Your task to perform on an android device: change notification settings in the gmail app Image 0: 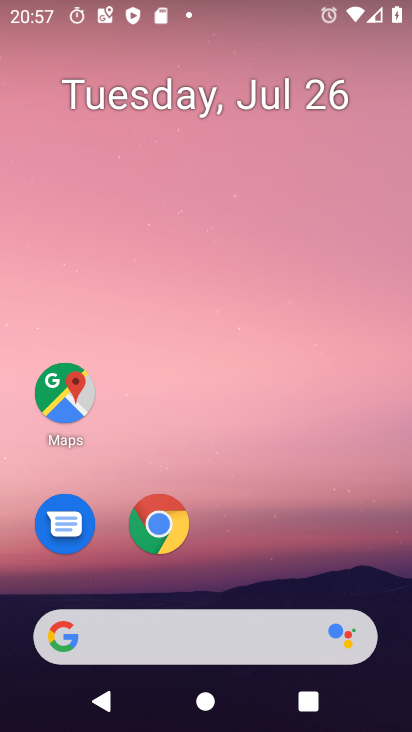
Step 0: drag from (285, 551) to (285, 63)
Your task to perform on an android device: change notification settings in the gmail app Image 1: 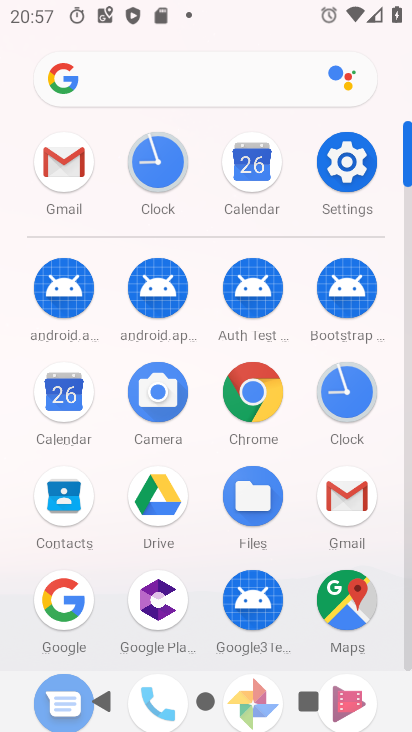
Step 1: click (57, 168)
Your task to perform on an android device: change notification settings in the gmail app Image 2: 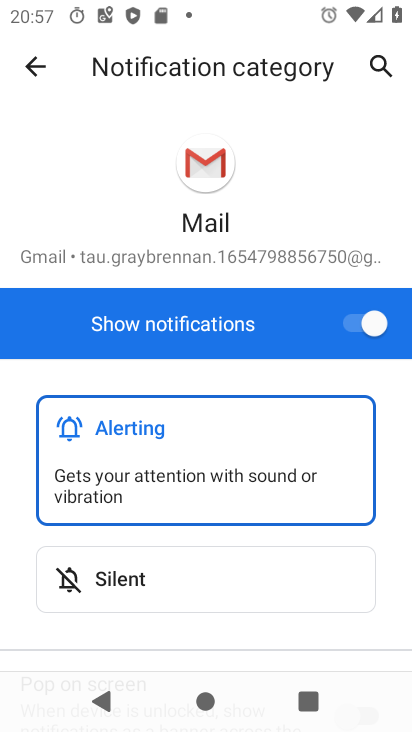
Step 2: click (361, 320)
Your task to perform on an android device: change notification settings in the gmail app Image 3: 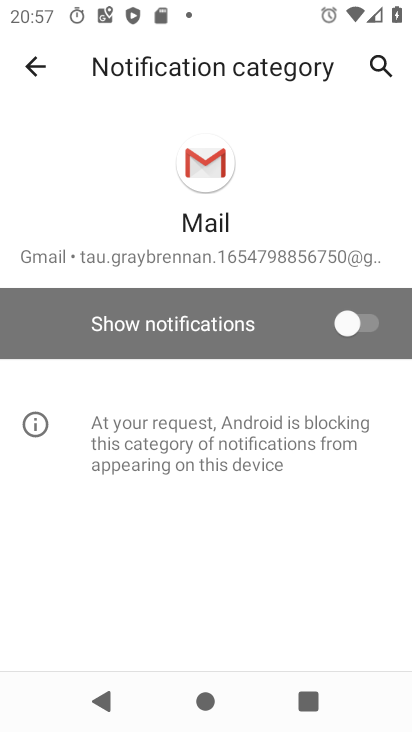
Step 3: task complete